Your task to perform on an android device: Open Reddit.com Image 0: 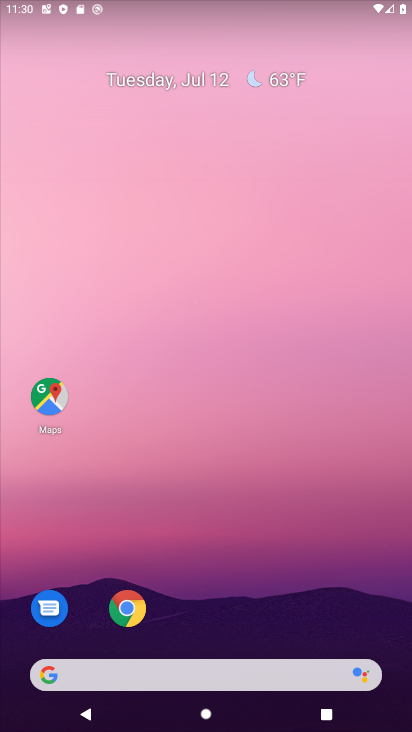
Step 0: drag from (230, 579) to (231, 84)
Your task to perform on an android device: Open Reddit.com Image 1: 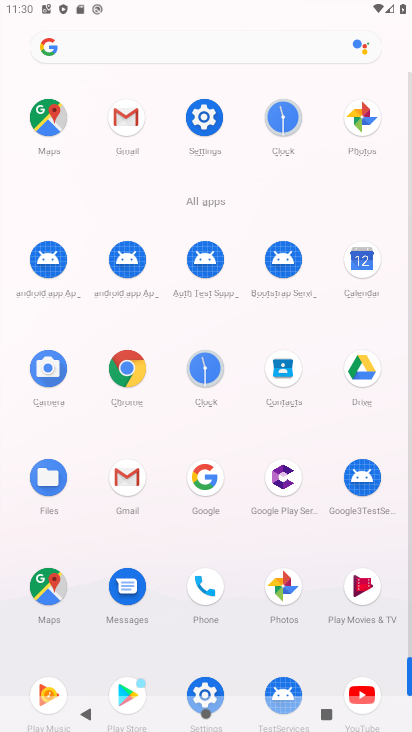
Step 1: click (199, 479)
Your task to perform on an android device: Open Reddit.com Image 2: 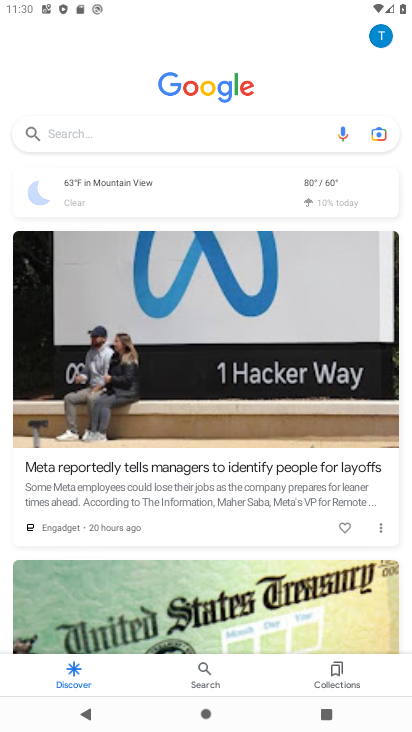
Step 2: click (176, 131)
Your task to perform on an android device: Open Reddit.com Image 3: 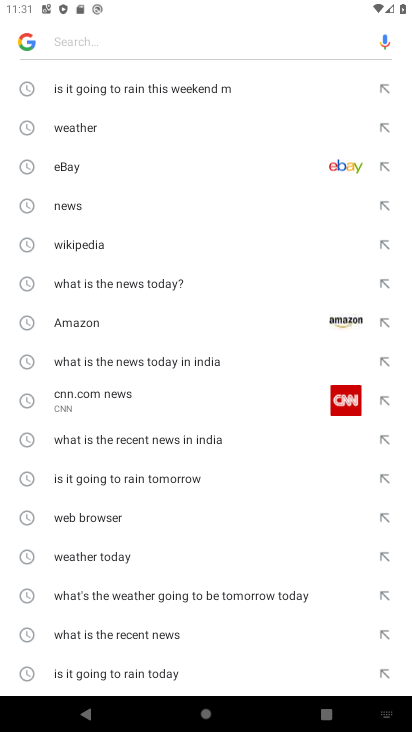
Step 3: drag from (169, 470) to (195, 493)
Your task to perform on an android device: Open Reddit.com Image 4: 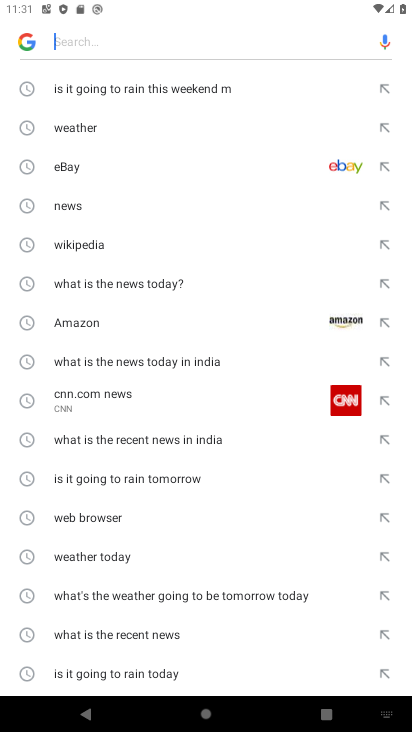
Step 4: type "reddit.com"
Your task to perform on an android device: Open Reddit.com Image 5: 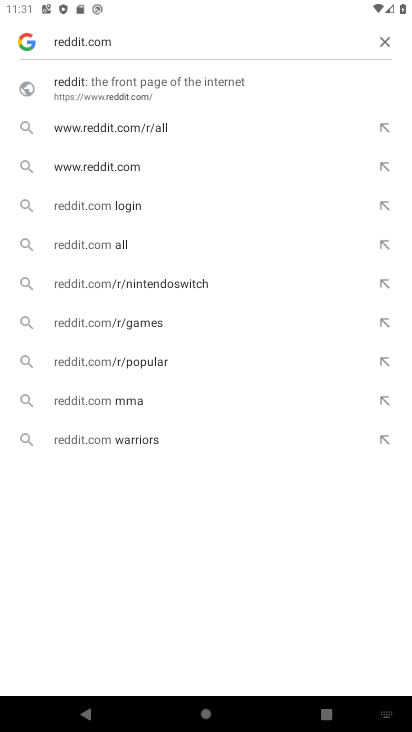
Step 5: click (137, 94)
Your task to perform on an android device: Open Reddit.com Image 6: 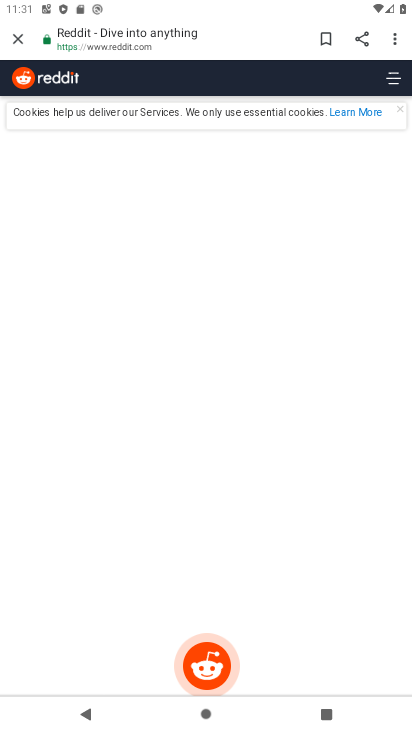
Step 6: task complete